Your task to perform on an android device: turn on the 12-hour format for clock Image 0: 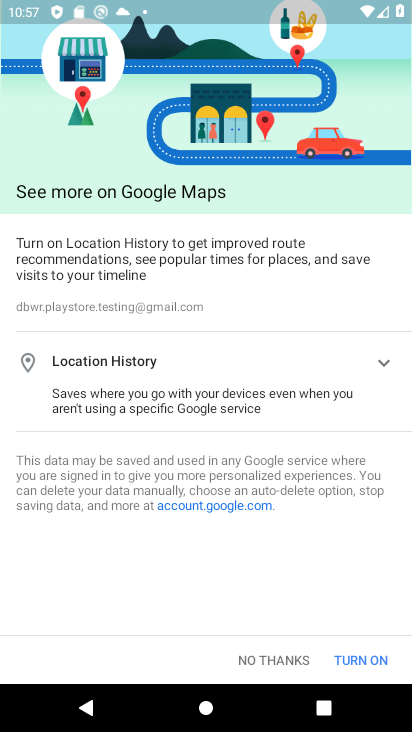
Step 0: press home button
Your task to perform on an android device: turn on the 12-hour format for clock Image 1: 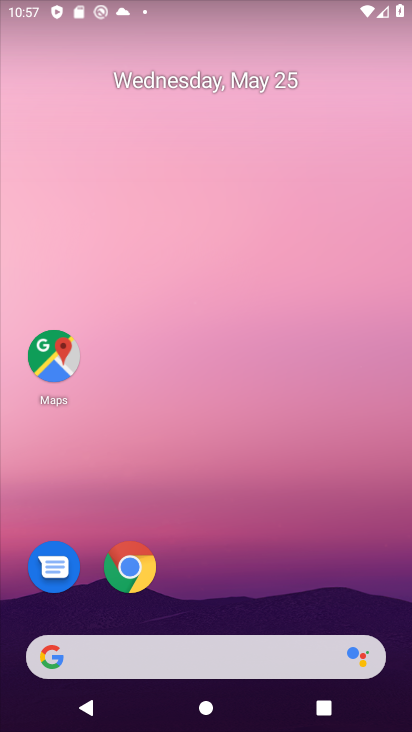
Step 1: drag from (202, 601) to (219, 239)
Your task to perform on an android device: turn on the 12-hour format for clock Image 2: 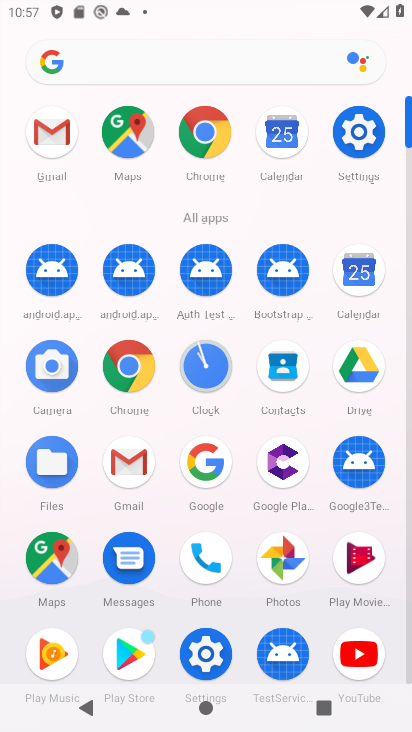
Step 2: click (204, 367)
Your task to perform on an android device: turn on the 12-hour format for clock Image 3: 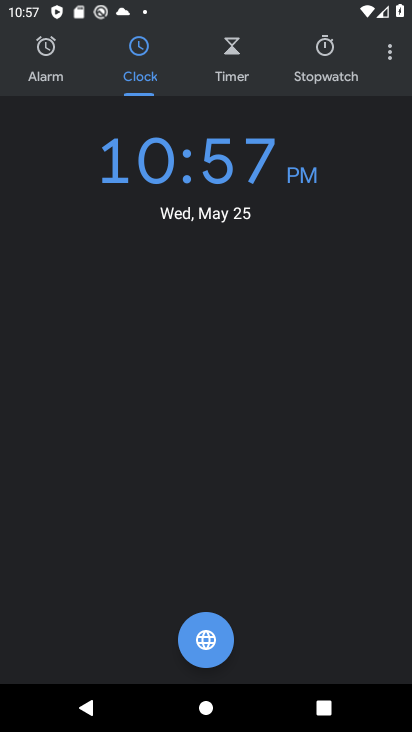
Step 3: press home button
Your task to perform on an android device: turn on the 12-hour format for clock Image 4: 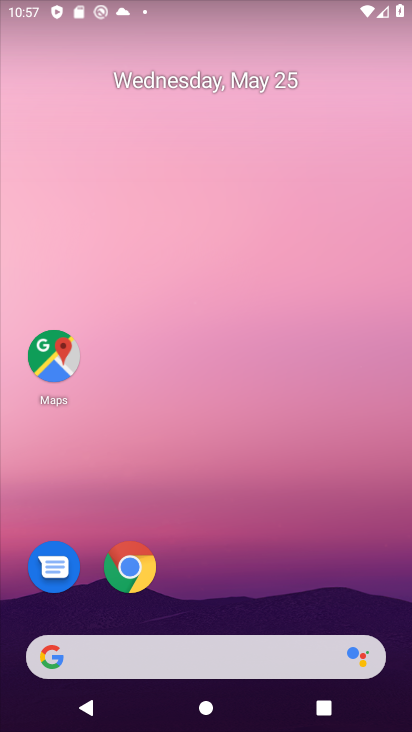
Step 4: drag from (213, 603) to (240, 144)
Your task to perform on an android device: turn on the 12-hour format for clock Image 5: 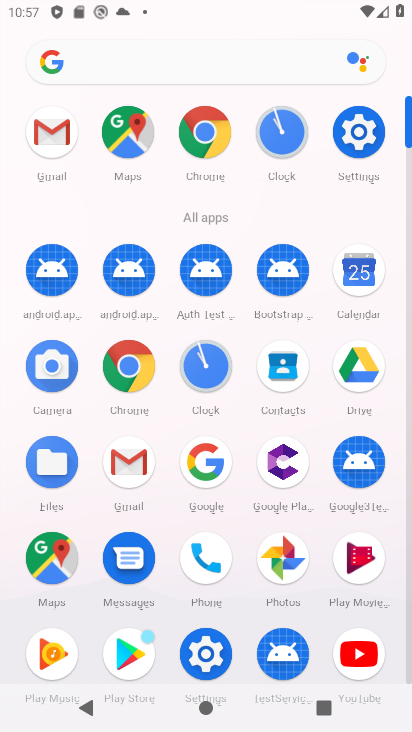
Step 5: click (198, 657)
Your task to perform on an android device: turn on the 12-hour format for clock Image 6: 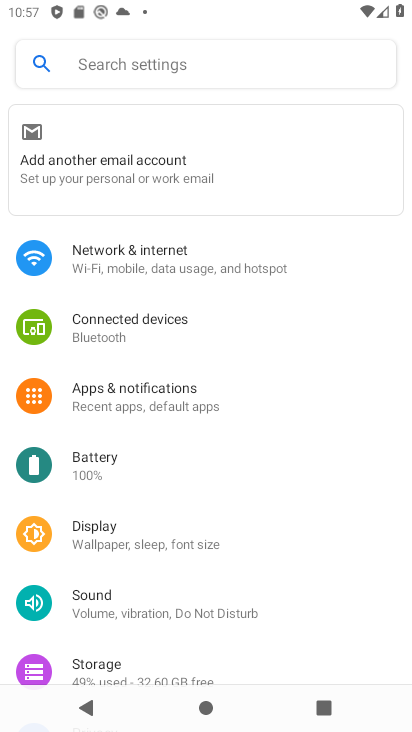
Step 6: drag from (142, 624) to (214, 253)
Your task to perform on an android device: turn on the 12-hour format for clock Image 7: 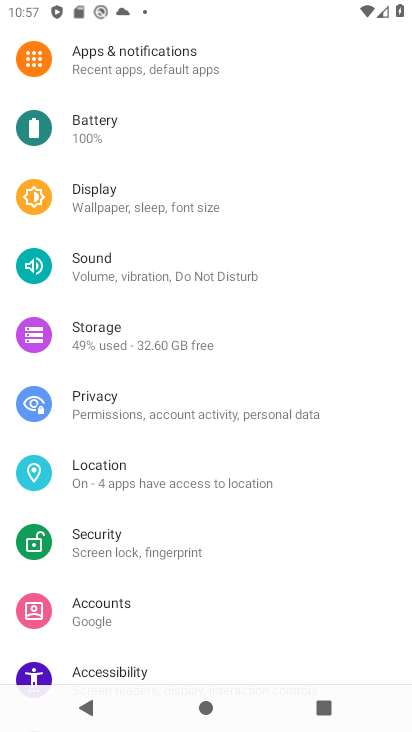
Step 7: drag from (212, 596) to (289, 284)
Your task to perform on an android device: turn on the 12-hour format for clock Image 8: 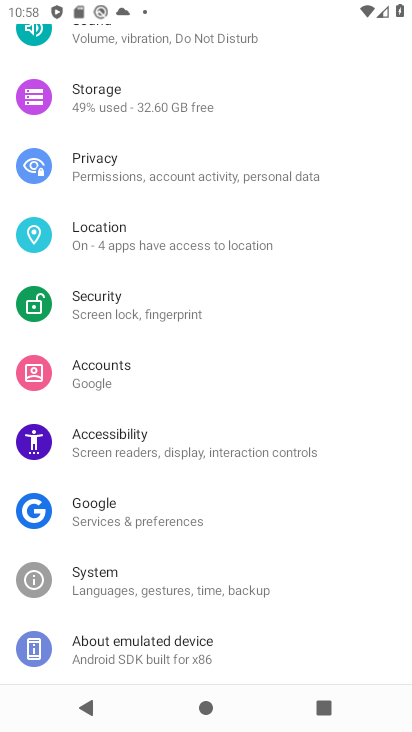
Step 8: drag from (175, 630) to (198, 386)
Your task to perform on an android device: turn on the 12-hour format for clock Image 9: 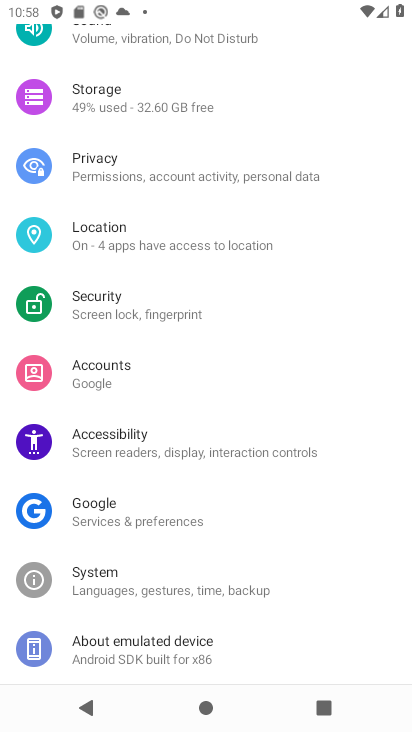
Step 9: click (121, 581)
Your task to perform on an android device: turn on the 12-hour format for clock Image 10: 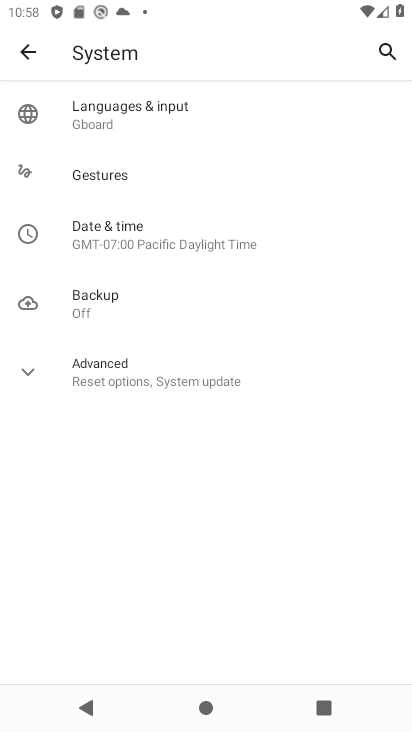
Step 10: click (178, 240)
Your task to perform on an android device: turn on the 12-hour format for clock Image 11: 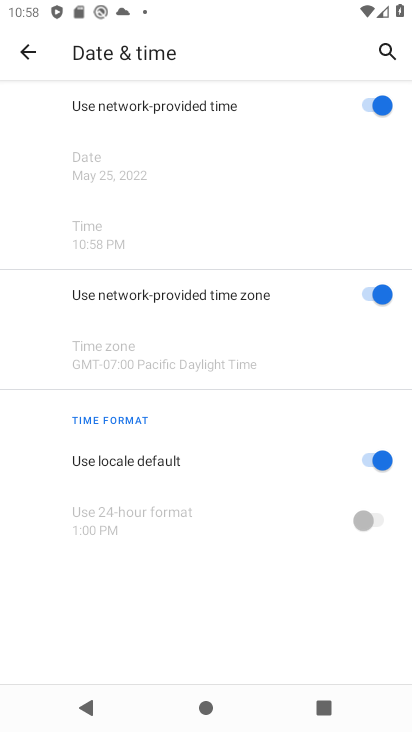
Step 11: task complete